Your task to perform on an android device: Add usb-c to usb-a to the cart on costco.com Image 0: 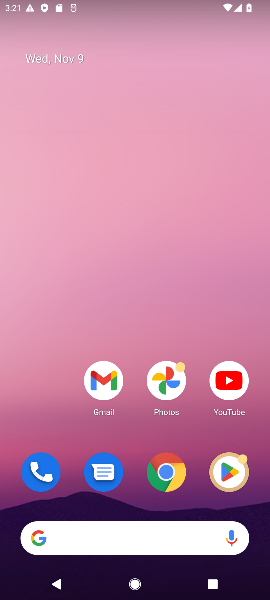
Step 0: click (71, 532)
Your task to perform on an android device: Add usb-c to usb-a to the cart on costco.com Image 1: 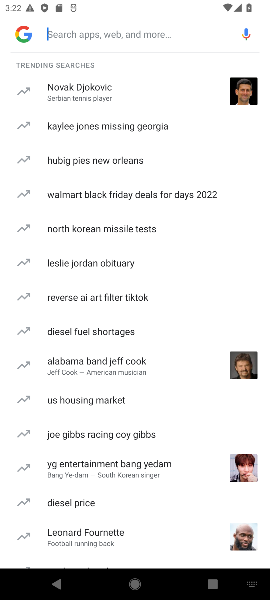
Step 1: type "costco.com"
Your task to perform on an android device: Add usb-c to usb-a to the cart on costco.com Image 2: 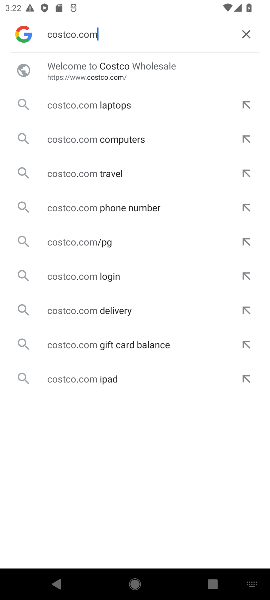
Step 2: click (66, 67)
Your task to perform on an android device: Add usb-c to usb-a to the cart on costco.com Image 3: 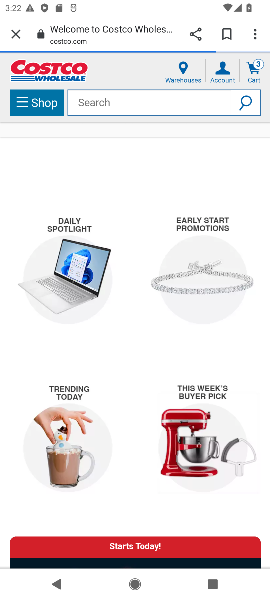
Step 3: click (90, 103)
Your task to perform on an android device: Add usb-c to usb-a to the cart on costco.com Image 4: 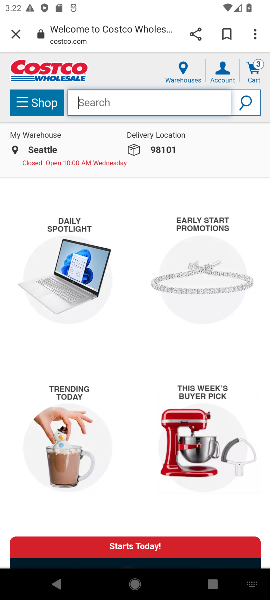
Step 4: type "usb-c to usb-a"
Your task to perform on an android device: Add usb-c to usb-a to the cart on costco.com Image 5: 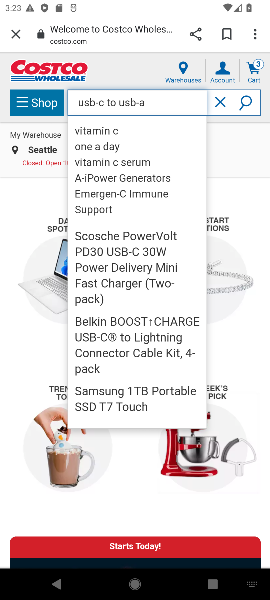
Step 5: click (244, 97)
Your task to perform on an android device: Add usb-c to usb-a to the cart on costco.com Image 6: 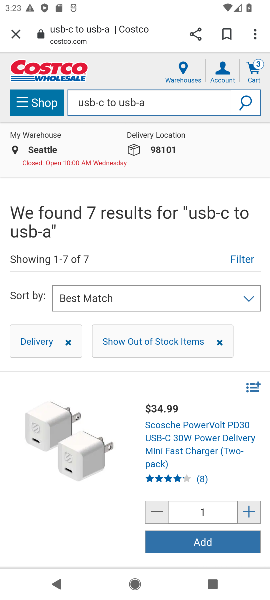
Step 6: click (198, 541)
Your task to perform on an android device: Add usb-c to usb-a to the cart on costco.com Image 7: 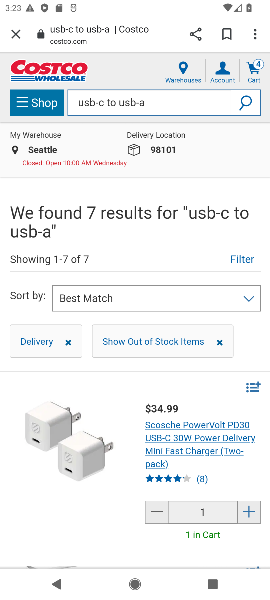
Step 7: task complete